Your task to perform on an android device: change notification settings in the gmail app Image 0: 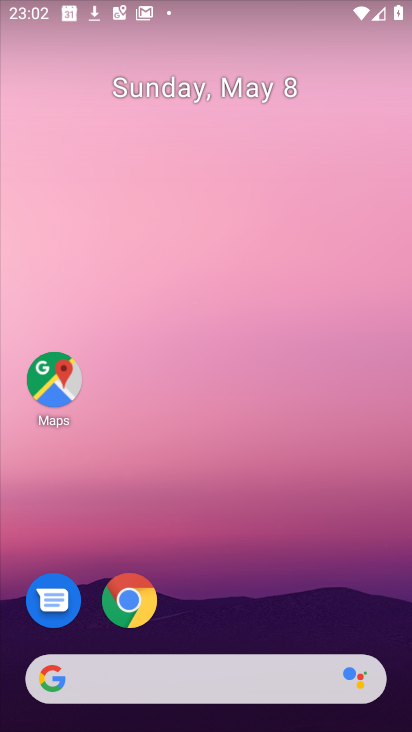
Step 0: drag from (284, 719) to (299, 316)
Your task to perform on an android device: change notification settings in the gmail app Image 1: 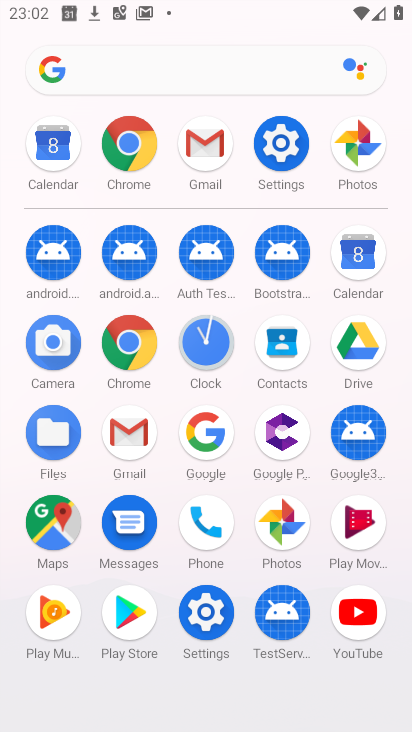
Step 1: click (187, 150)
Your task to perform on an android device: change notification settings in the gmail app Image 2: 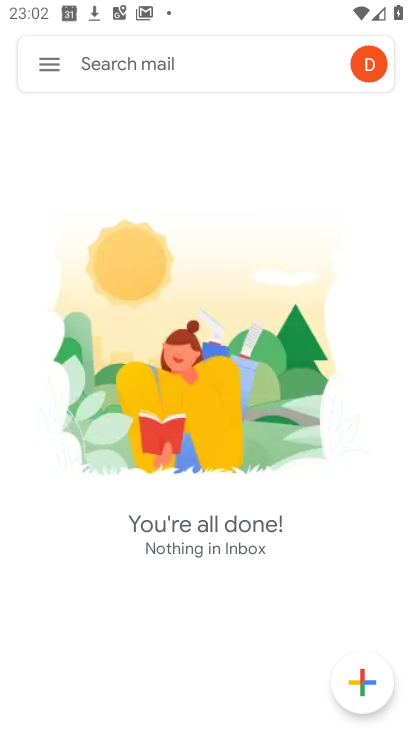
Step 2: click (39, 60)
Your task to perform on an android device: change notification settings in the gmail app Image 3: 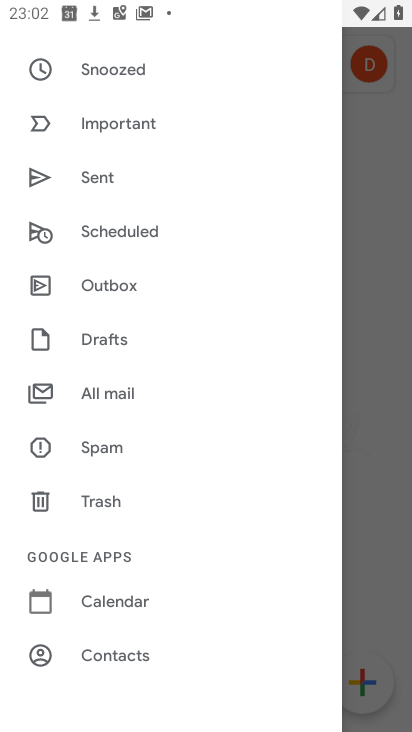
Step 3: drag from (156, 492) to (343, 209)
Your task to perform on an android device: change notification settings in the gmail app Image 4: 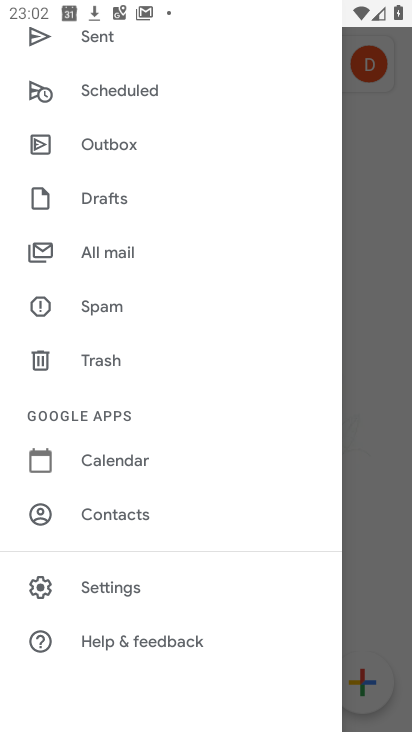
Step 4: click (106, 580)
Your task to perform on an android device: change notification settings in the gmail app Image 5: 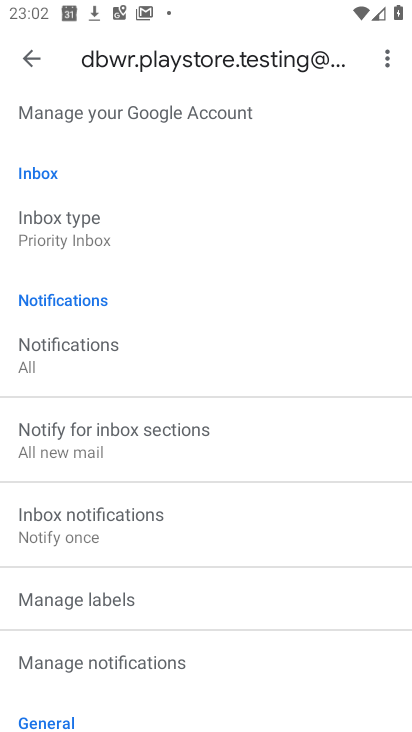
Step 5: click (125, 367)
Your task to perform on an android device: change notification settings in the gmail app Image 6: 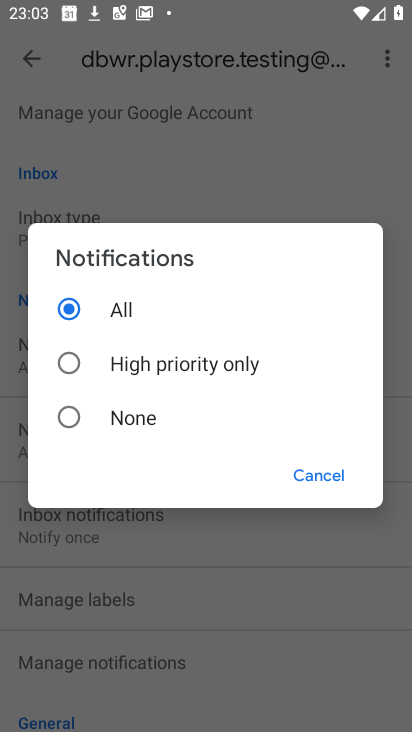
Step 6: click (142, 380)
Your task to perform on an android device: change notification settings in the gmail app Image 7: 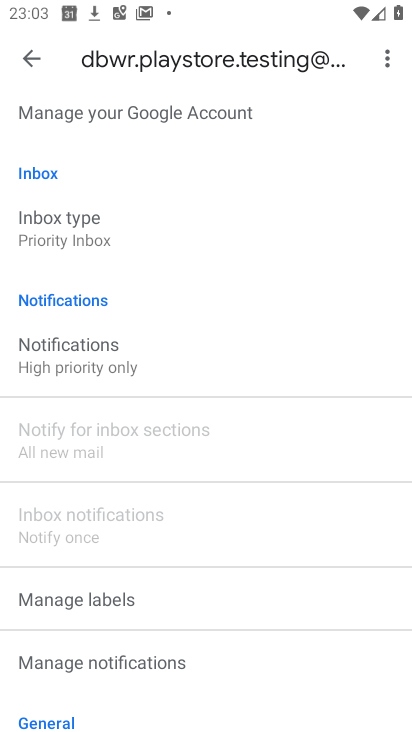
Step 7: task complete